Your task to perform on an android device: all mails in gmail Image 0: 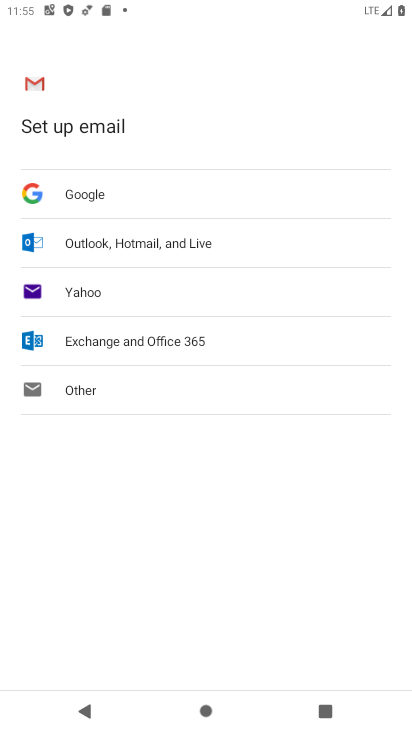
Step 0: press home button
Your task to perform on an android device: all mails in gmail Image 1: 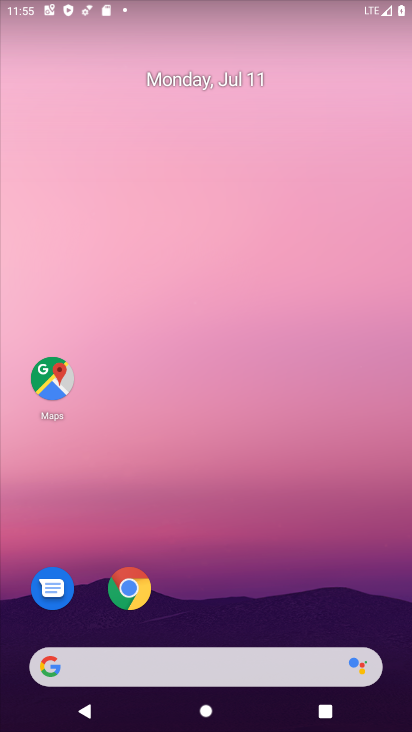
Step 1: drag from (310, 569) to (231, 36)
Your task to perform on an android device: all mails in gmail Image 2: 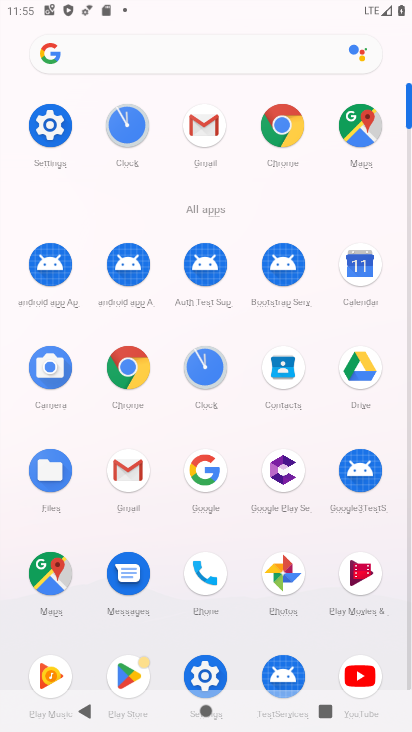
Step 2: click (199, 137)
Your task to perform on an android device: all mails in gmail Image 3: 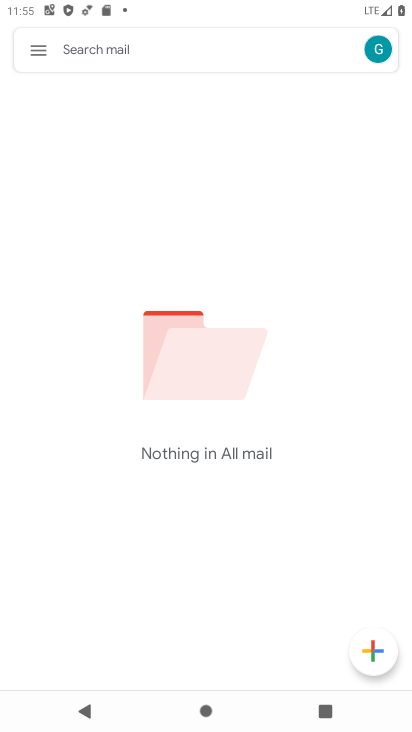
Step 3: task complete